Your task to perform on an android device: Search for razer naga on target.com, select the first entry, add it to the cart, then select checkout. Image 0: 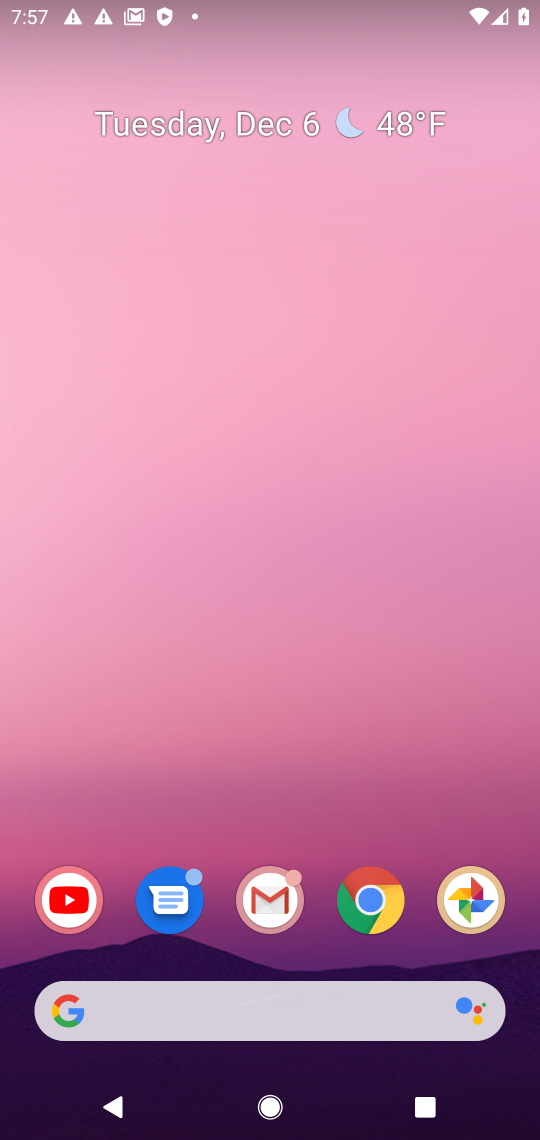
Step 0: drag from (271, 984) to (208, 423)
Your task to perform on an android device: Search for razer naga on target.com, select the first entry, add it to the cart, then select checkout. Image 1: 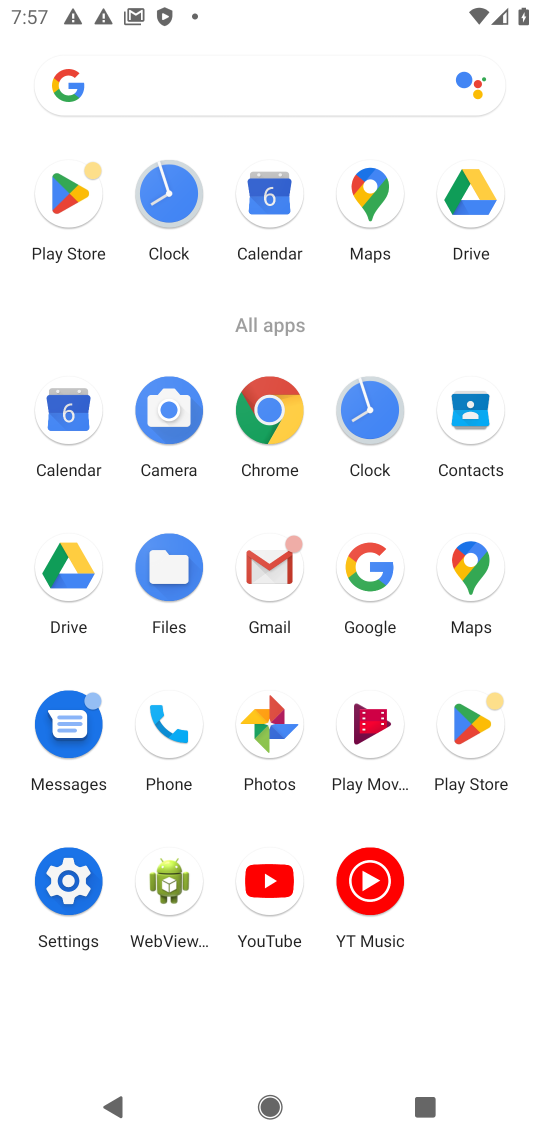
Step 1: click (375, 580)
Your task to perform on an android device: Search for razer naga on target.com, select the first entry, add it to the cart, then select checkout. Image 2: 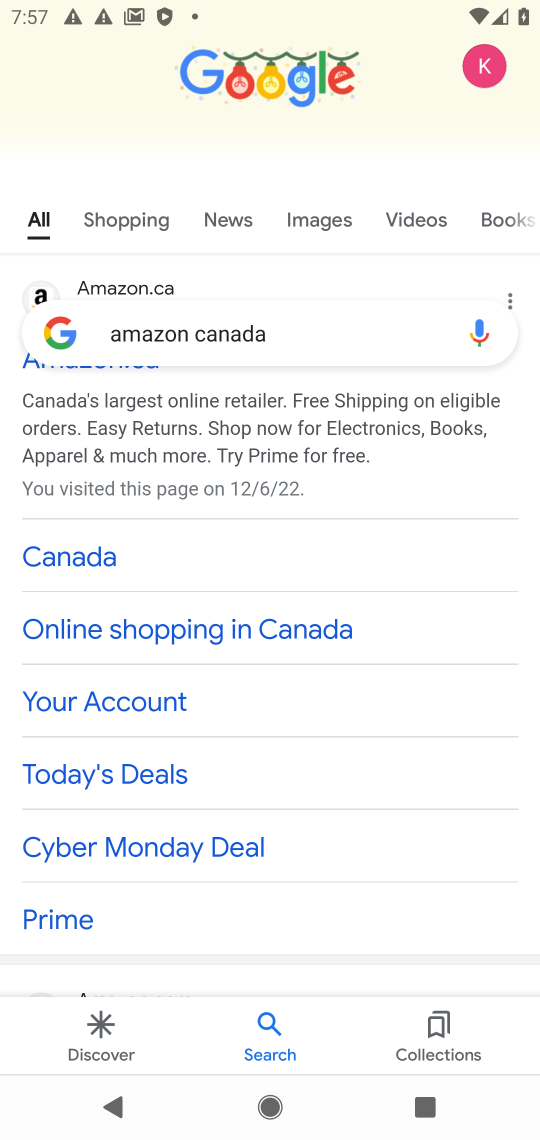
Step 2: click (199, 322)
Your task to perform on an android device: Search for razer naga on target.com, select the first entry, add it to the cart, then select checkout. Image 3: 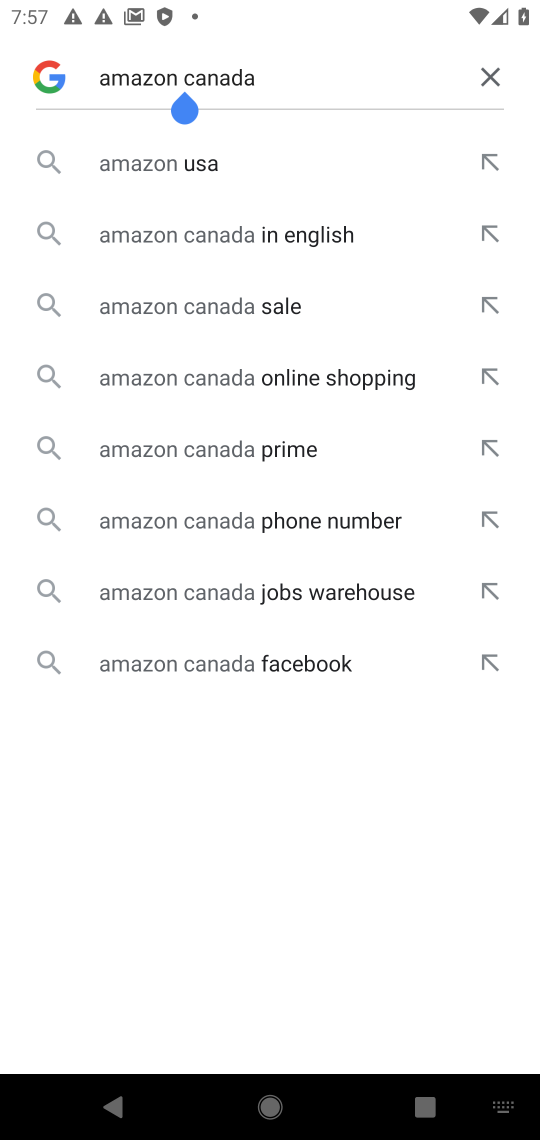
Step 3: click (496, 77)
Your task to perform on an android device: Search for razer naga on target.com, select the first entry, add it to the cart, then select checkout. Image 4: 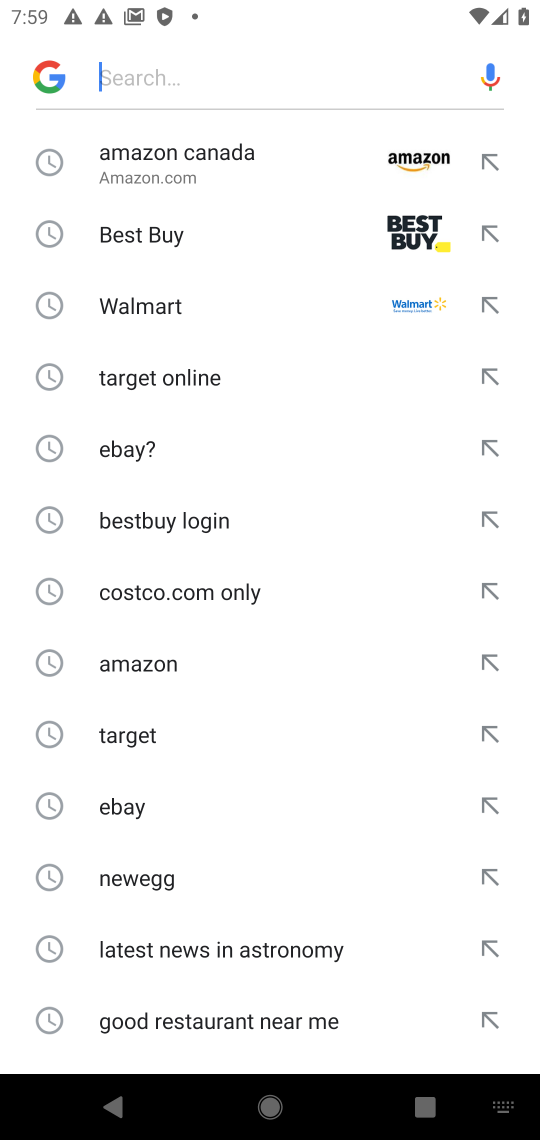
Step 4: click (133, 751)
Your task to perform on an android device: Search for razer naga on target.com, select the first entry, add it to the cart, then select checkout. Image 5: 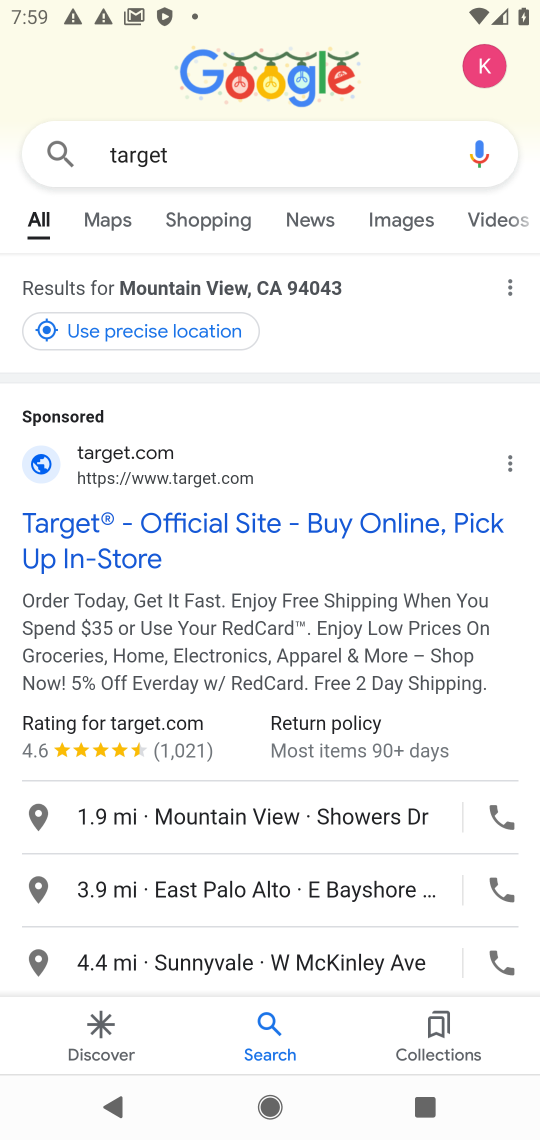
Step 5: click (147, 543)
Your task to perform on an android device: Search for razer naga on target.com, select the first entry, add it to the cart, then select checkout. Image 6: 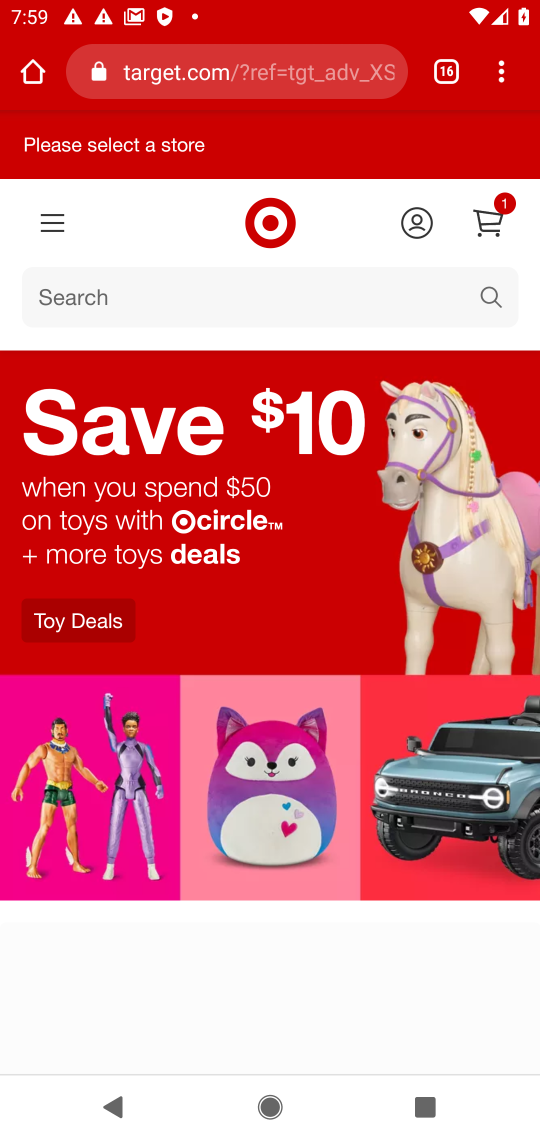
Step 6: click (117, 294)
Your task to perform on an android device: Search for razer naga on target.com, select the first entry, add it to the cart, then select checkout. Image 7: 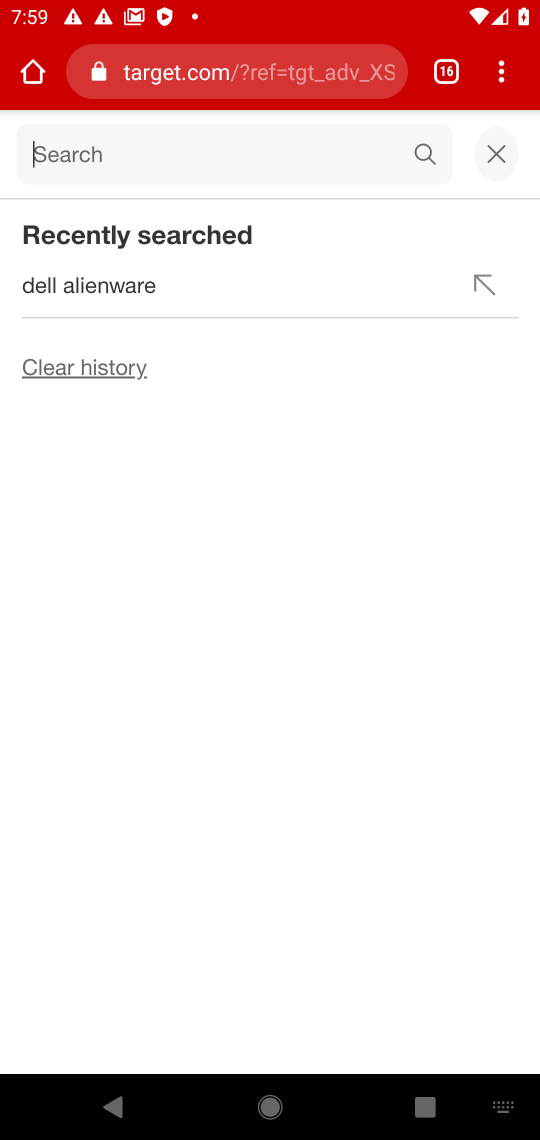
Step 7: type "razer naga"
Your task to perform on an android device: Search for razer naga on target.com, select the first entry, add it to the cart, then select checkout. Image 8: 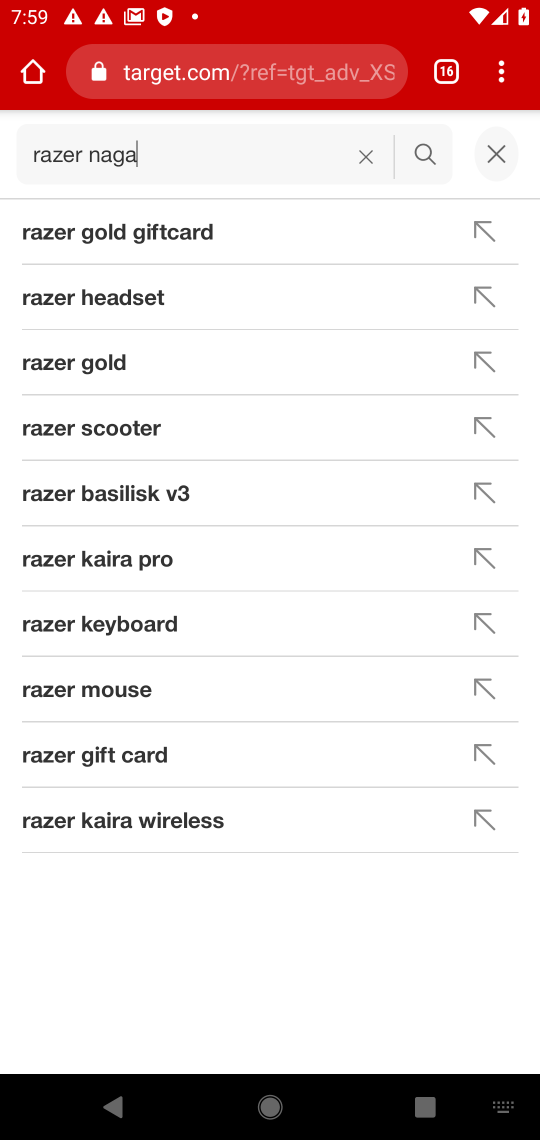
Step 8: click (422, 151)
Your task to perform on an android device: Search for razer naga on target.com, select the first entry, add it to the cart, then select checkout. Image 9: 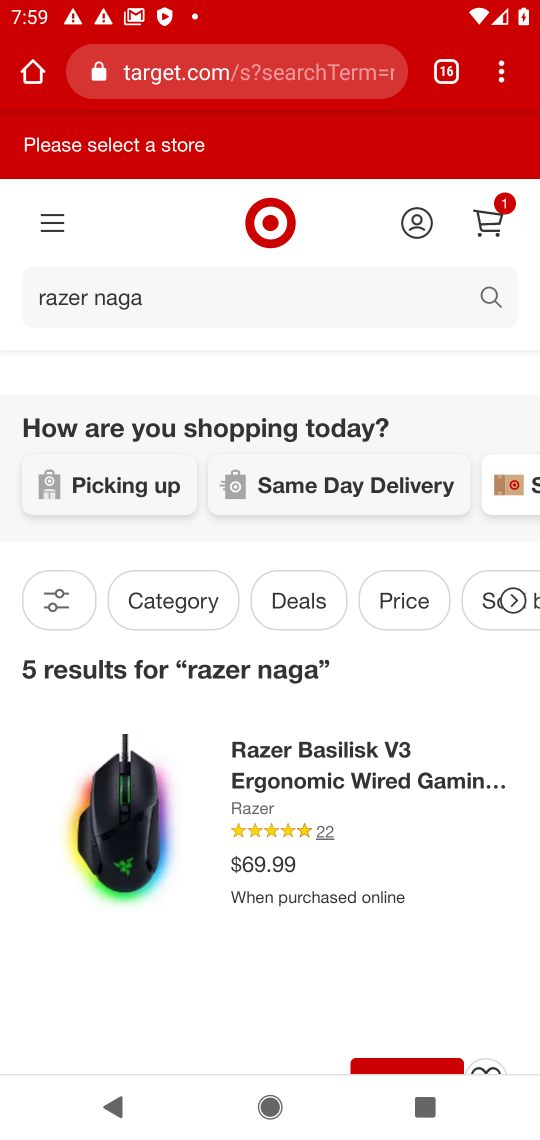
Step 9: drag from (321, 941) to (333, 427)
Your task to perform on an android device: Search for razer naga on target.com, select the first entry, add it to the cart, then select checkout. Image 10: 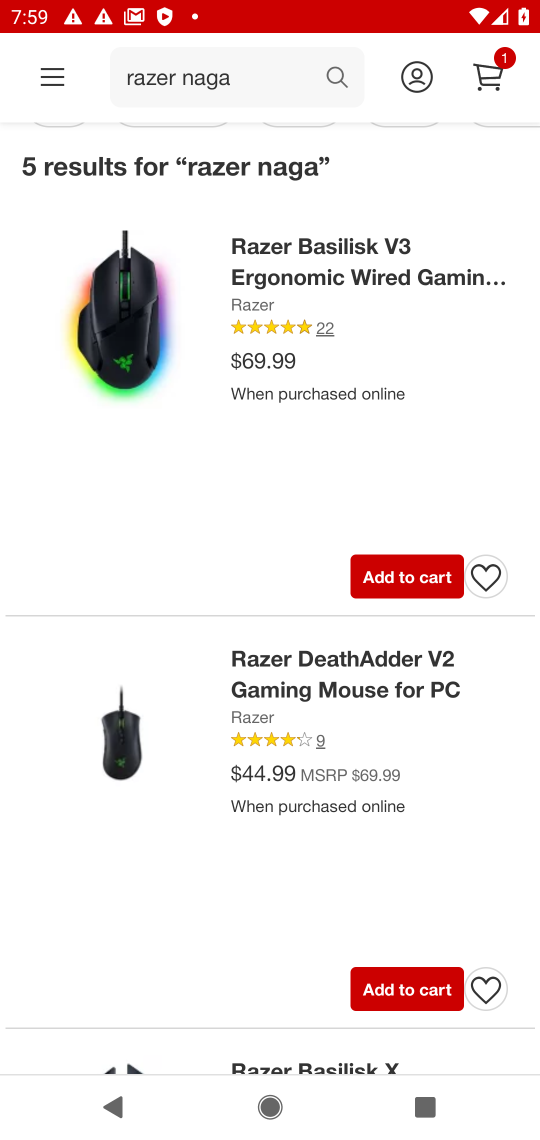
Step 10: click (397, 588)
Your task to perform on an android device: Search for razer naga on target.com, select the first entry, add it to the cart, then select checkout. Image 11: 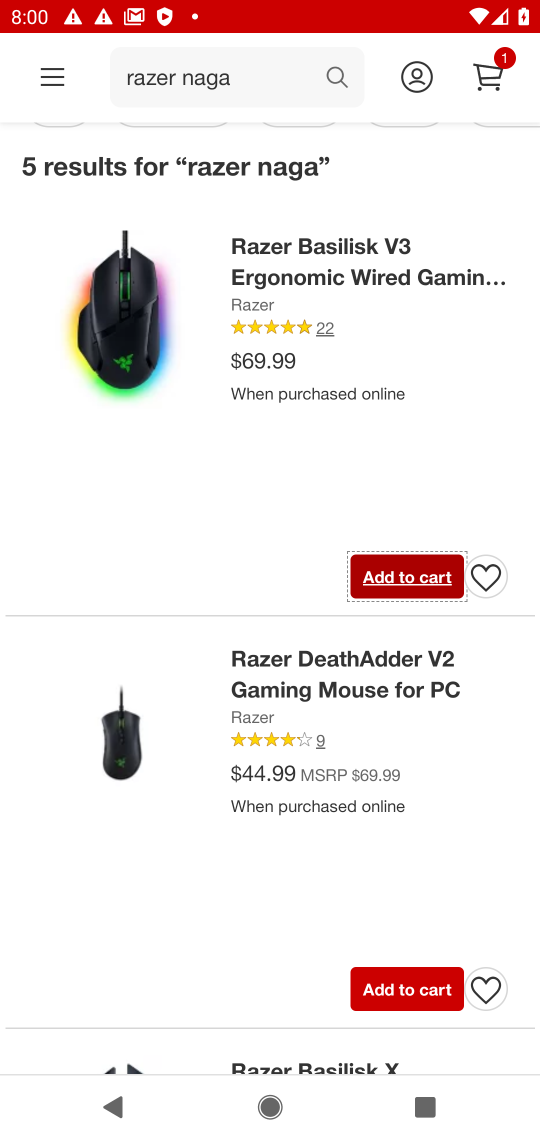
Step 11: click (398, 578)
Your task to perform on an android device: Search for razer naga on target.com, select the first entry, add it to the cart, then select checkout. Image 12: 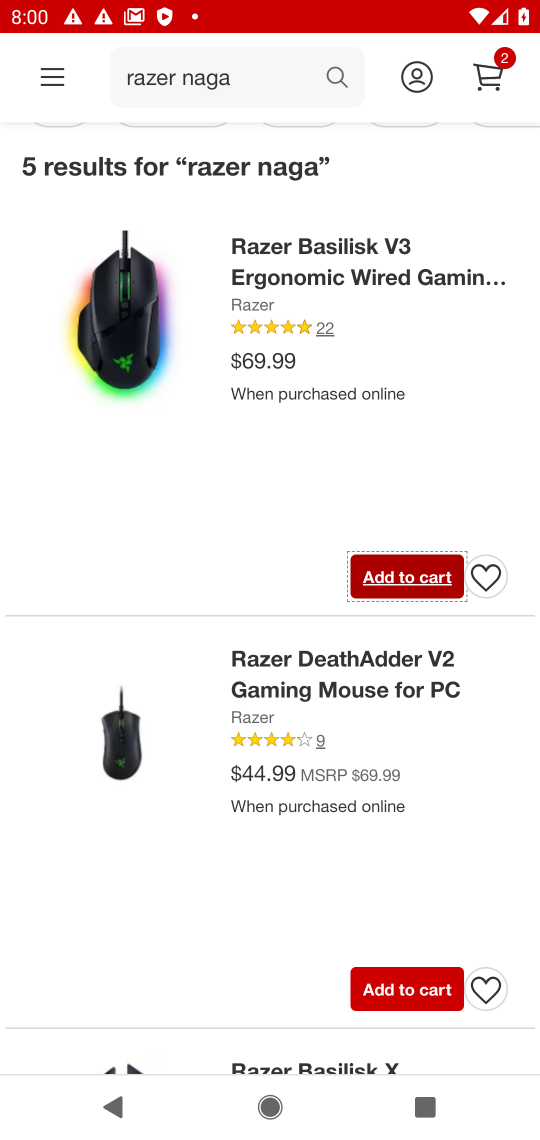
Step 12: click (492, 70)
Your task to perform on an android device: Search for razer naga on target.com, select the first entry, add it to the cart, then select checkout. Image 13: 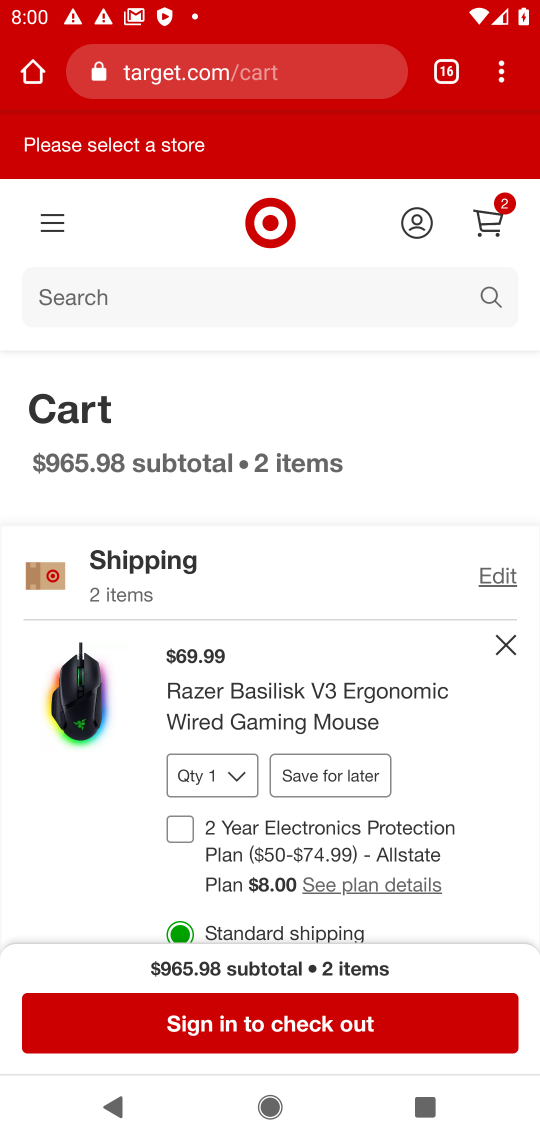
Step 13: click (275, 1032)
Your task to perform on an android device: Search for razer naga on target.com, select the first entry, add it to the cart, then select checkout. Image 14: 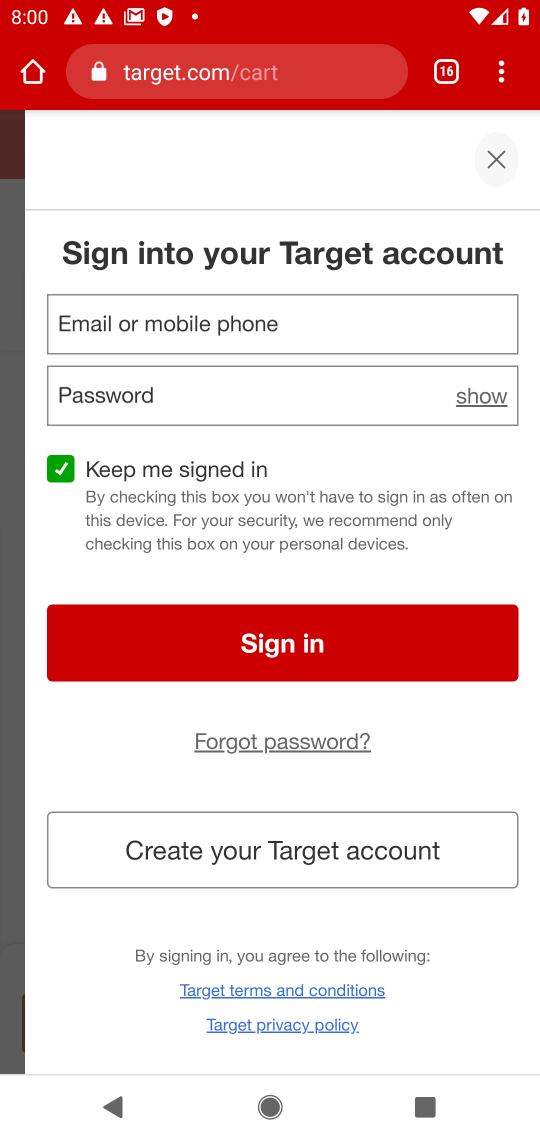
Step 14: task complete